Your task to perform on an android device: open app "McDonald's" (install if not already installed), go to login, and select forgot password Image 0: 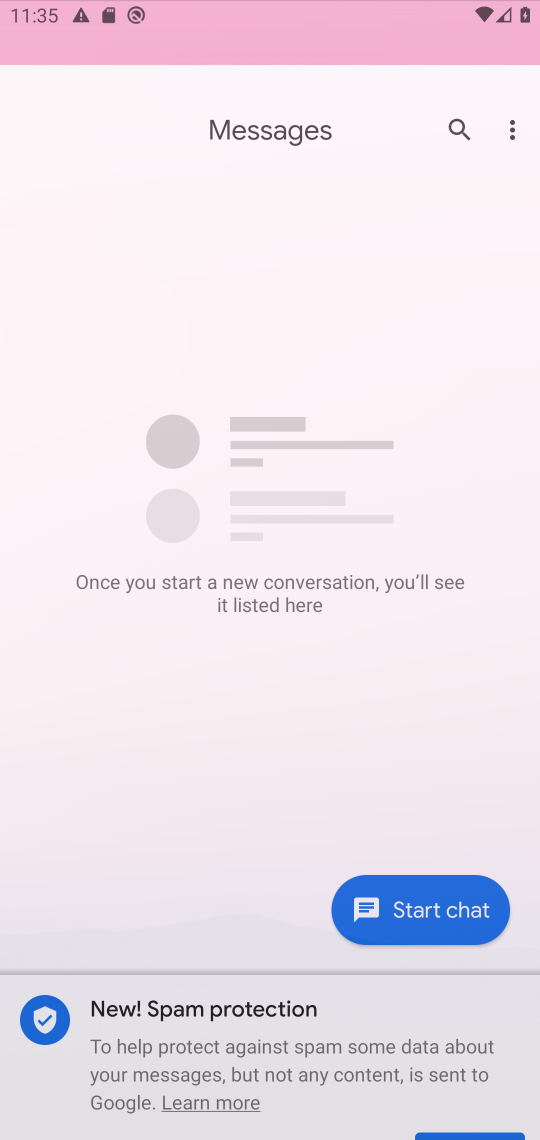
Step 0: press home button
Your task to perform on an android device: open app "McDonald's" (install if not already installed), go to login, and select forgot password Image 1: 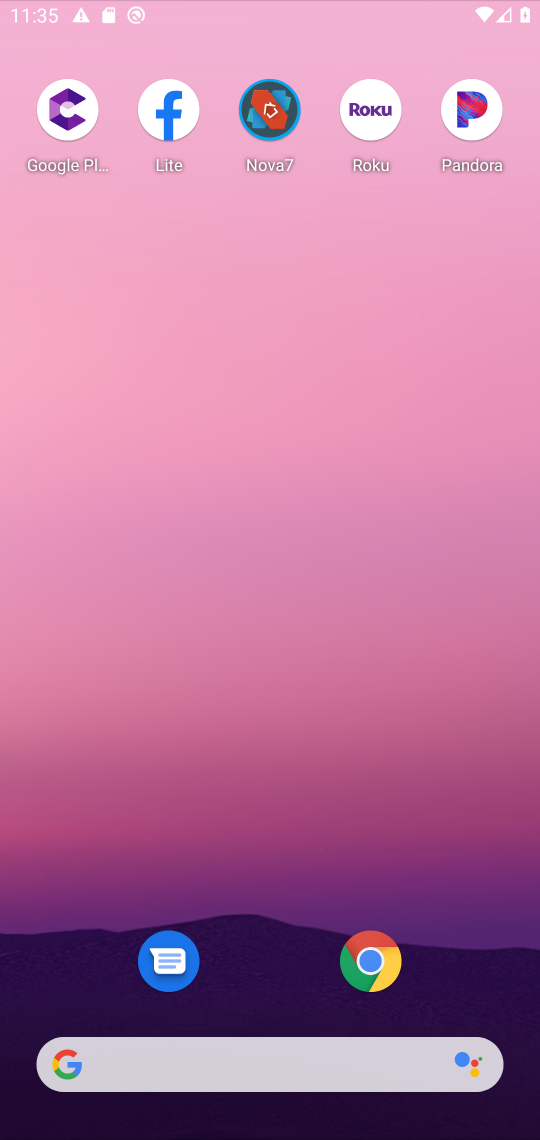
Step 1: press home button
Your task to perform on an android device: open app "McDonald's" (install if not already installed), go to login, and select forgot password Image 2: 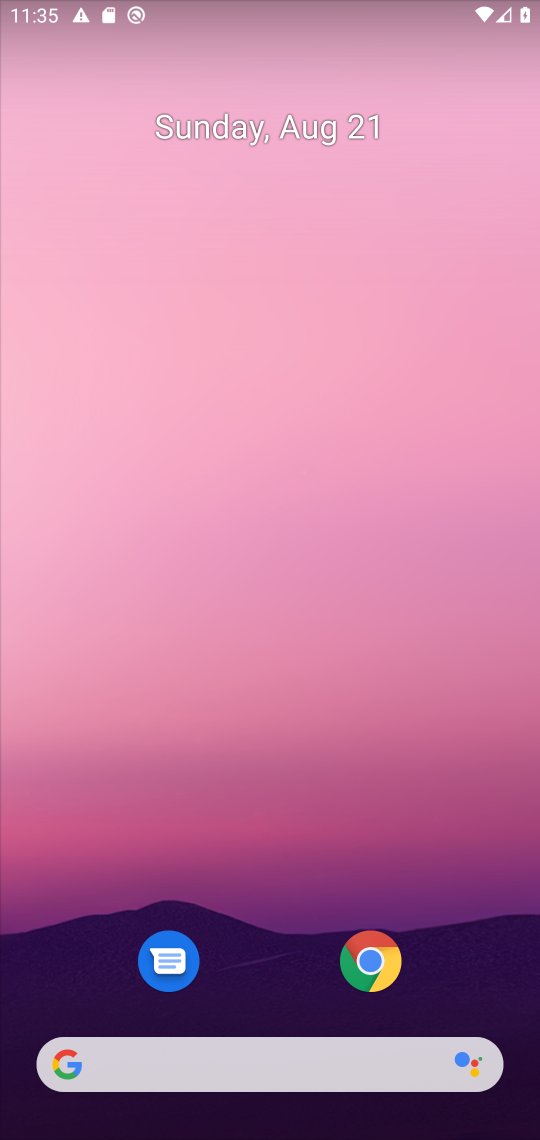
Step 2: drag from (471, 976) to (428, 142)
Your task to perform on an android device: open app "McDonald's" (install if not already installed), go to login, and select forgot password Image 3: 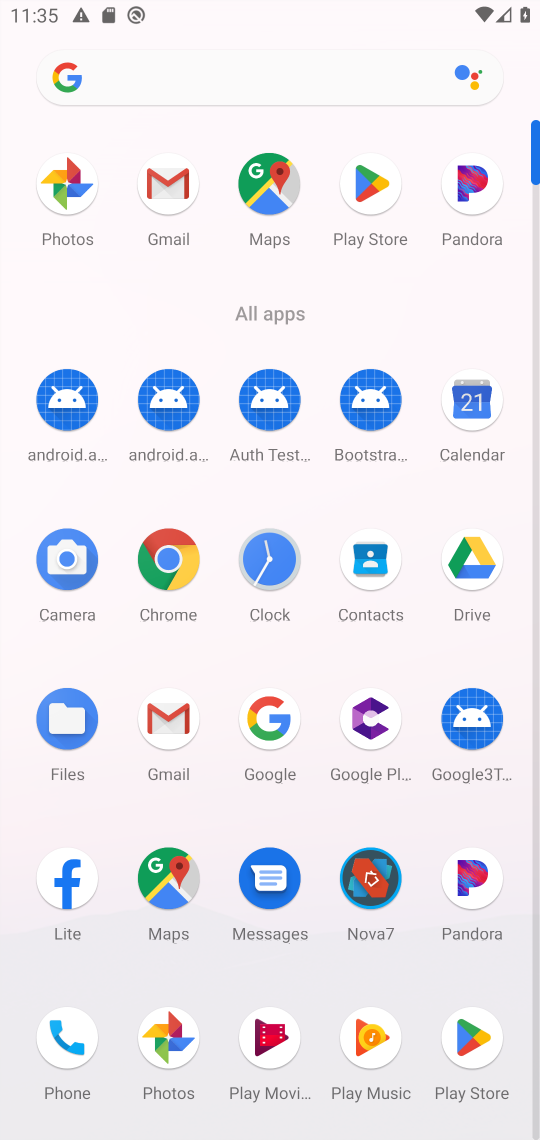
Step 3: click (369, 172)
Your task to perform on an android device: open app "McDonald's" (install if not already installed), go to login, and select forgot password Image 4: 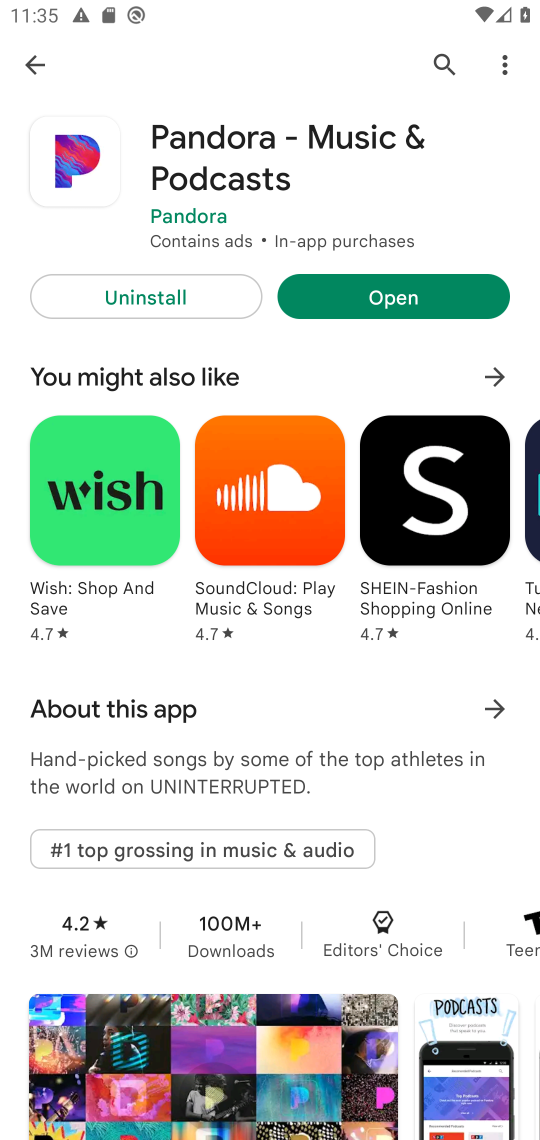
Step 4: press back button
Your task to perform on an android device: open app "McDonald's" (install if not already installed), go to login, and select forgot password Image 5: 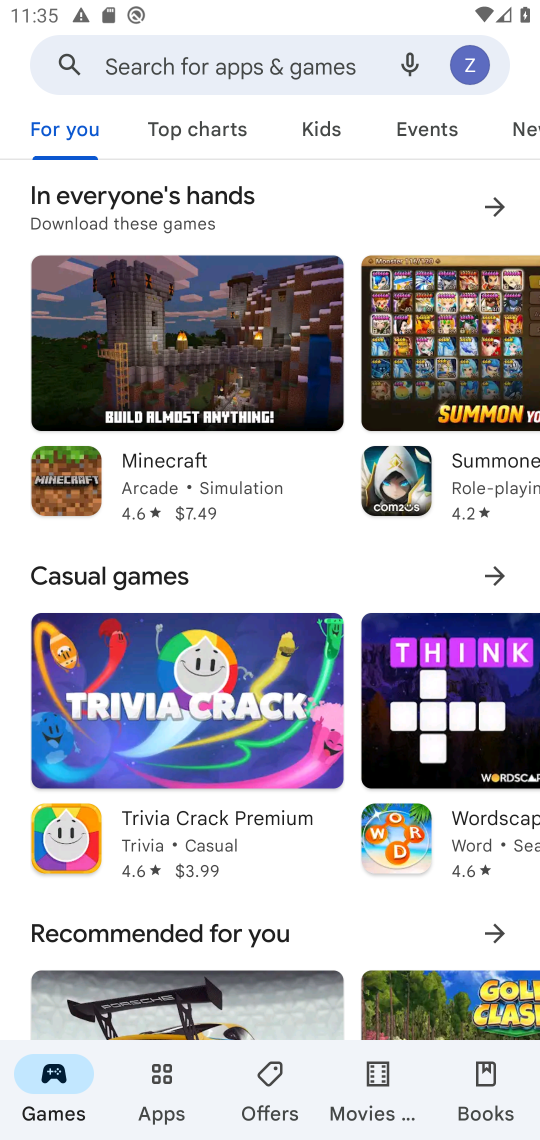
Step 5: click (320, 66)
Your task to perform on an android device: open app "McDonald's" (install if not already installed), go to login, and select forgot password Image 6: 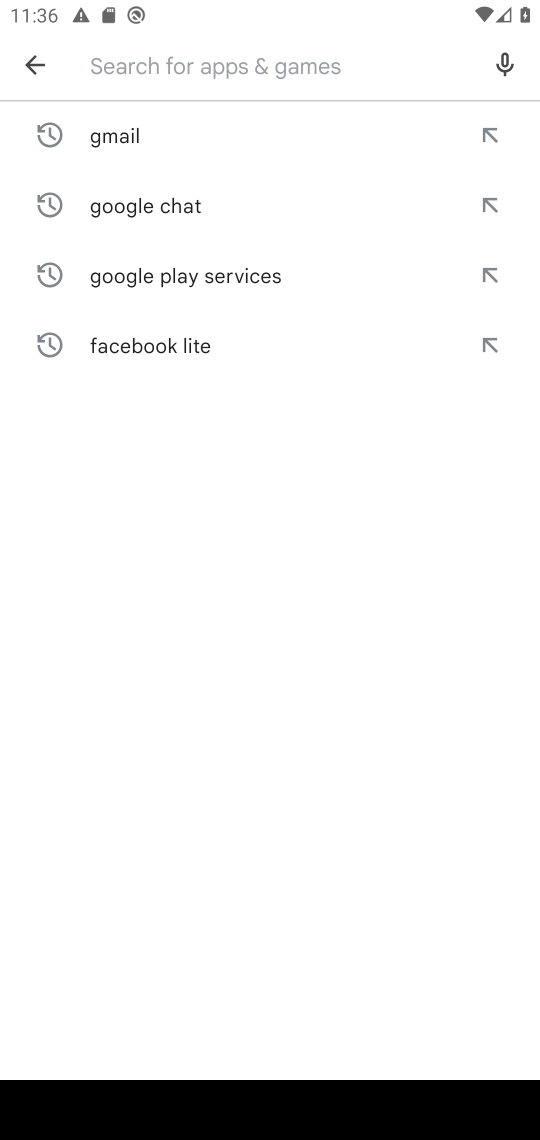
Step 6: press enter
Your task to perform on an android device: open app "McDonald's" (install if not already installed), go to login, and select forgot password Image 7: 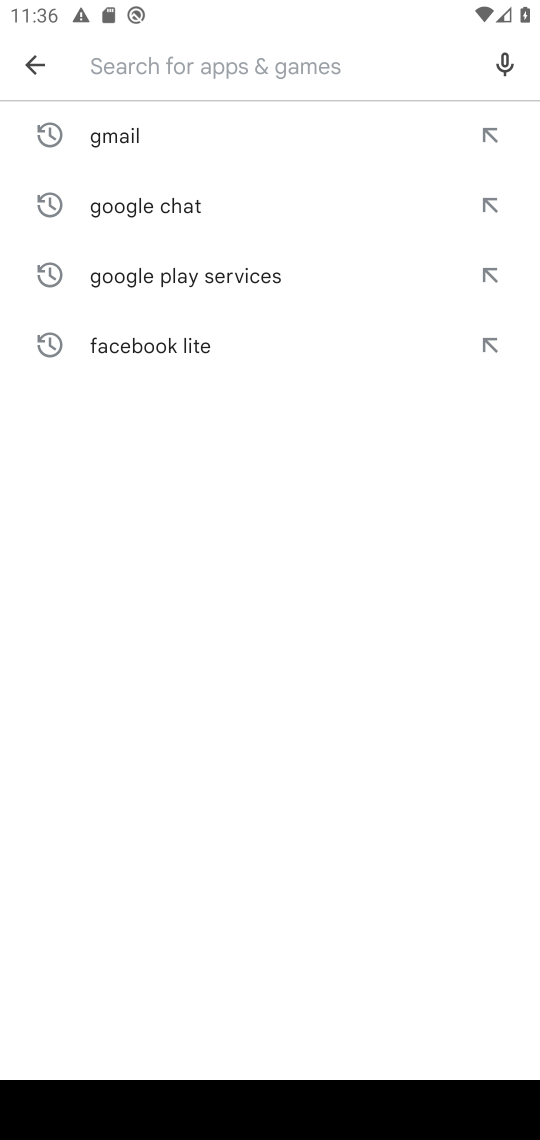
Step 7: type "McDonald's"
Your task to perform on an android device: open app "McDonald's" (install if not already installed), go to login, and select forgot password Image 8: 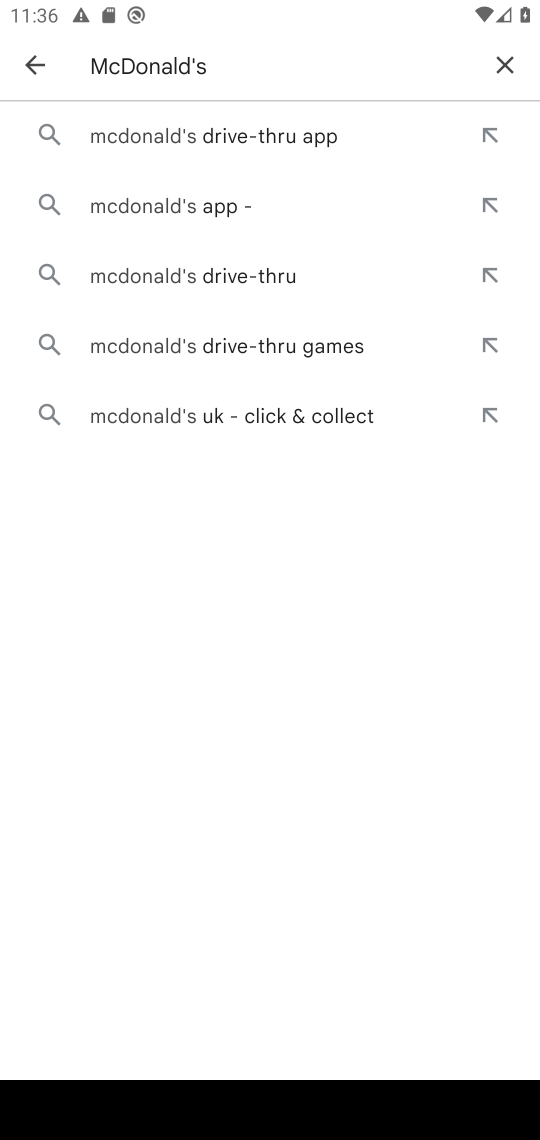
Step 8: click (210, 209)
Your task to perform on an android device: open app "McDonald's" (install if not already installed), go to login, and select forgot password Image 9: 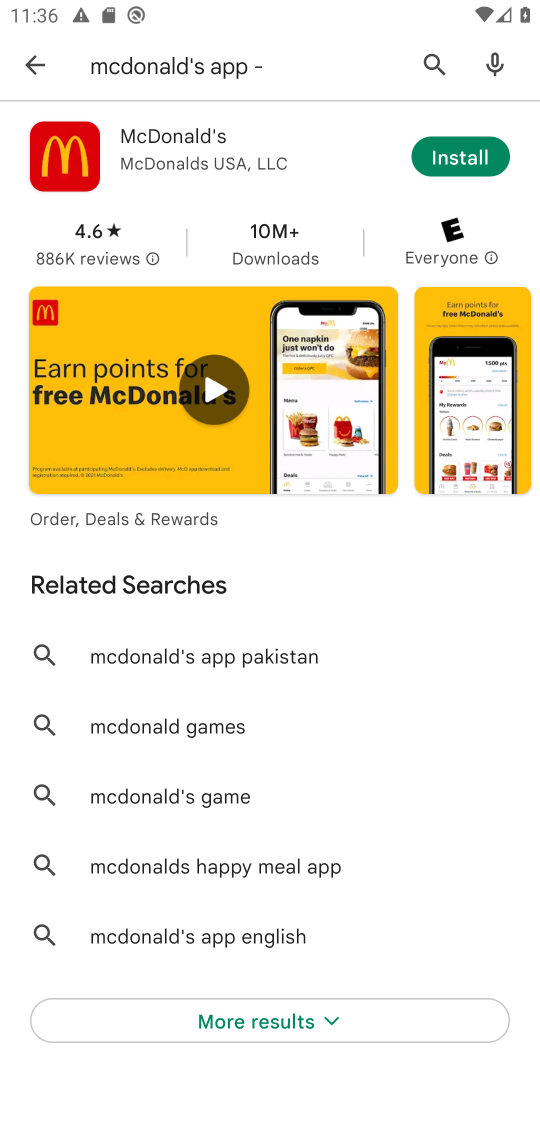
Step 9: click (464, 160)
Your task to perform on an android device: open app "McDonald's" (install if not already installed), go to login, and select forgot password Image 10: 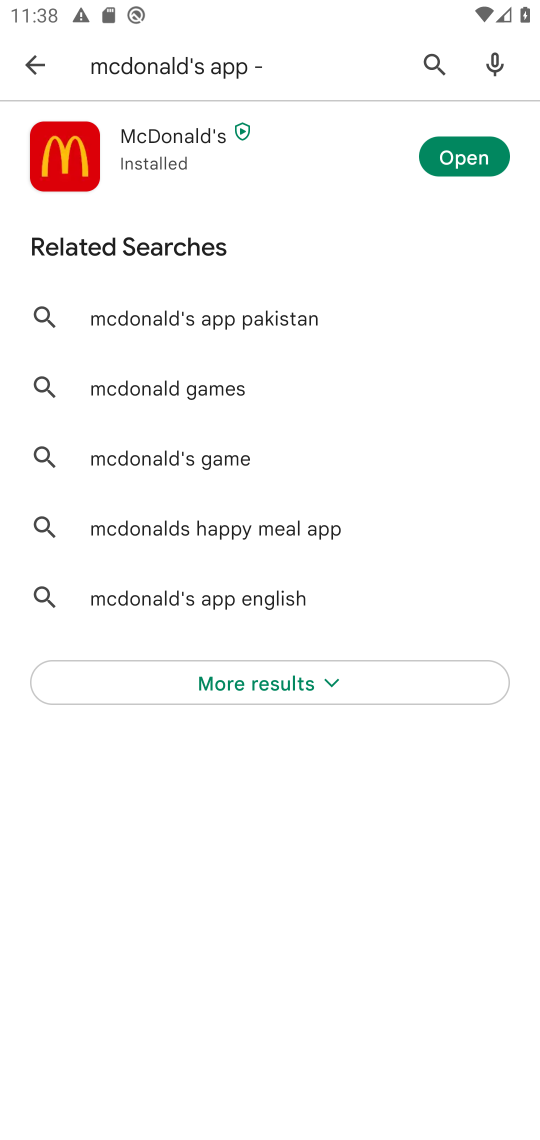
Step 10: click (464, 141)
Your task to perform on an android device: open app "McDonald's" (install if not already installed), go to login, and select forgot password Image 11: 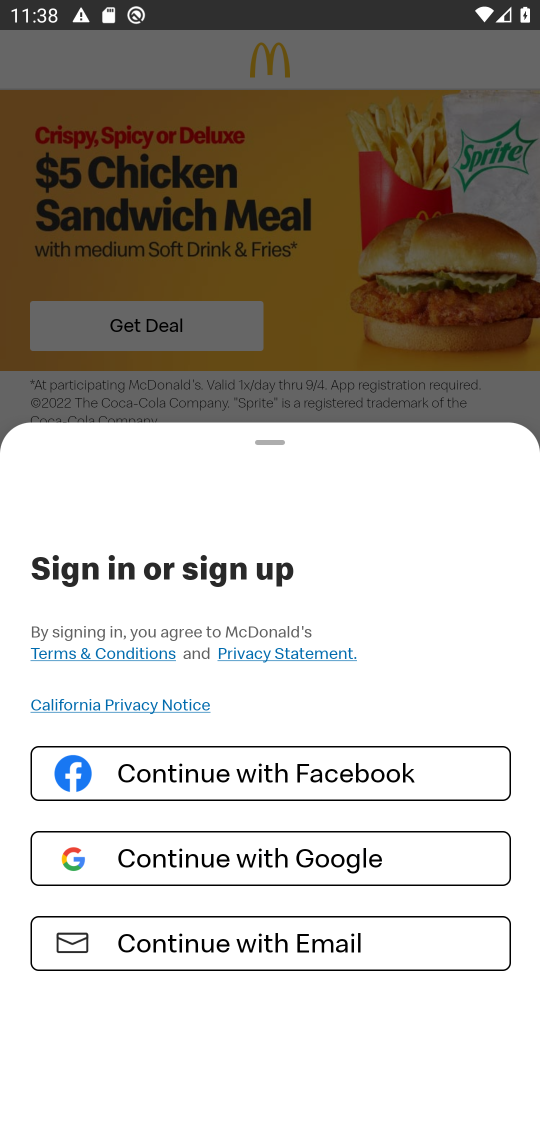
Step 11: click (296, 925)
Your task to perform on an android device: open app "McDonald's" (install if not already installed), go to login, and select forgot password Image 12: 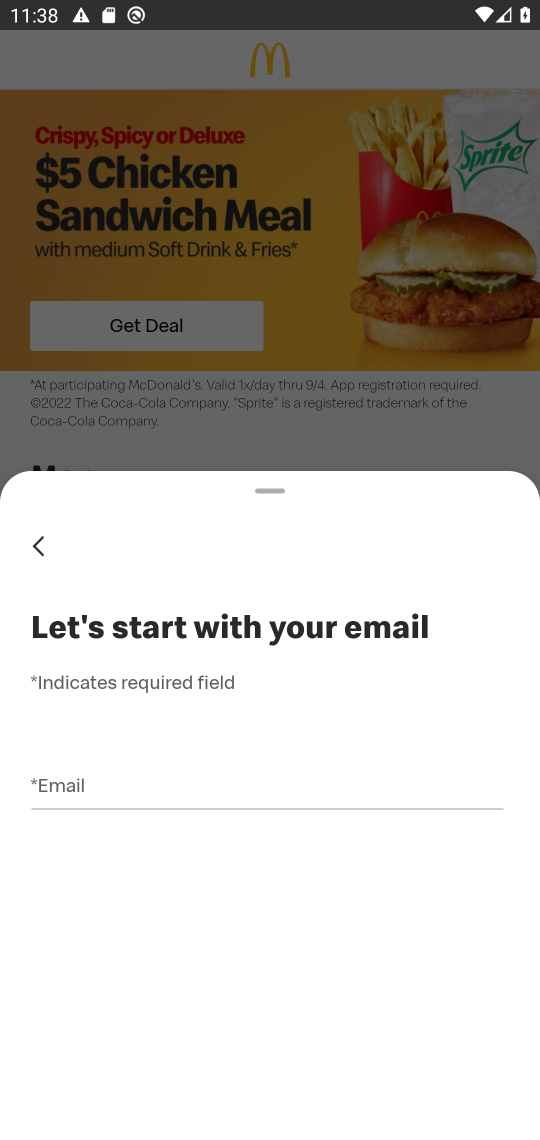
Step 12: task complete